Your task to perform on an android device: Show me recent news Image 0: 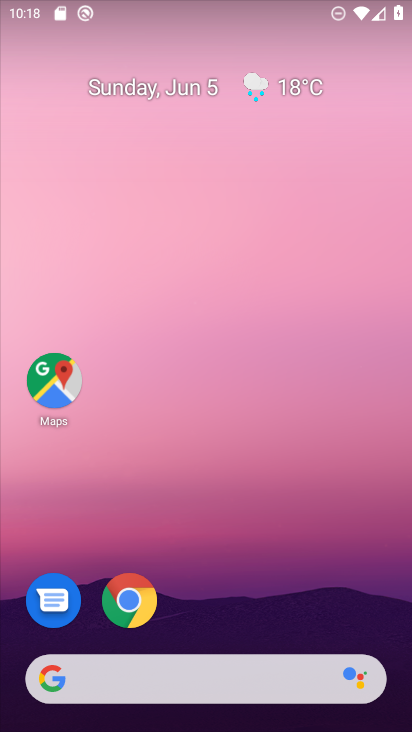
Step 0: click (173, 706)
Your task to perform on an android device: Show me recent news Image 1: 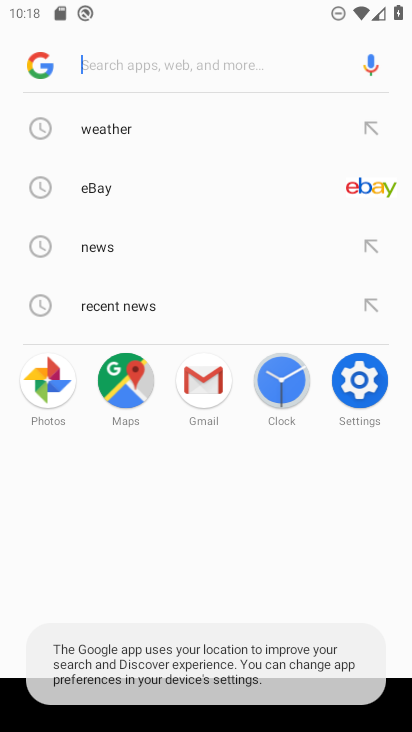
Step 1: click (163, 73)
Your task to perform on an android device: Show me recent news Image 2: 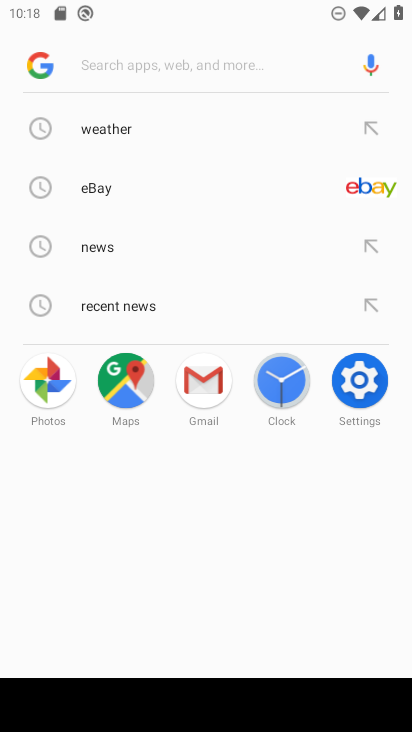
Step 2: click (169, 303)
Your task to perform on an android device: Show me recent news Image 3: 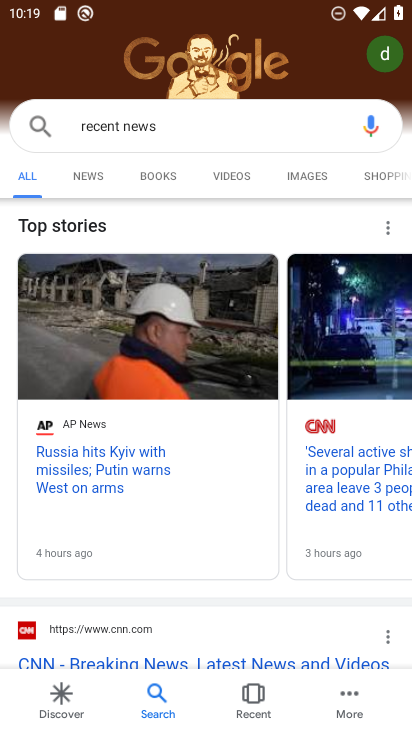
Step 3: task complete